Your task to perform on an android device: Go to battery settings Image 0: 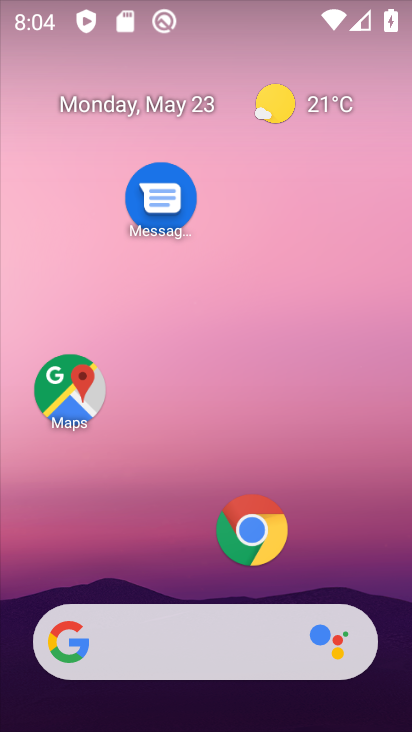
Step 0: click (397, 423)
Your task to perform on an android device: Go to battery settings Image 1: 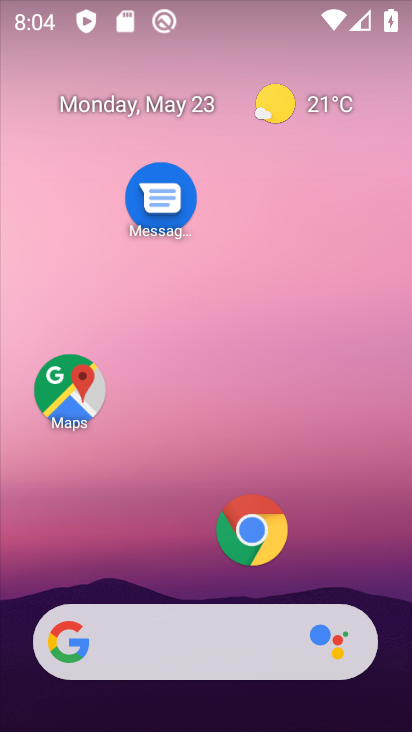
Step 1: drag from (185, 551) to (279, 56)
Your task to perform on an android device: Go to battery settings Image 2: 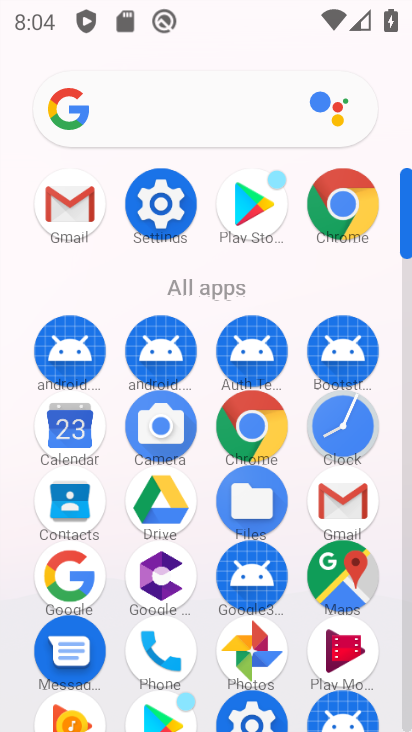
Step 2: click (160, 202)
Your task to perform on an android device: Go to battery settings Image 3: 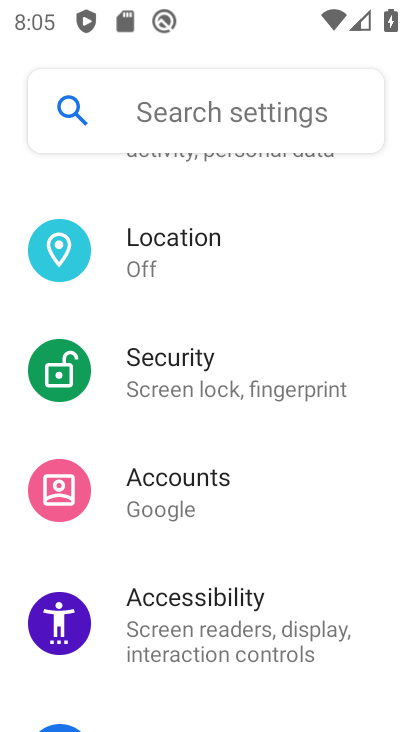
Step 3: drag from (115, 204) to (165, 629)
Your task to perform on an android device: Go to battery settings Image 4: 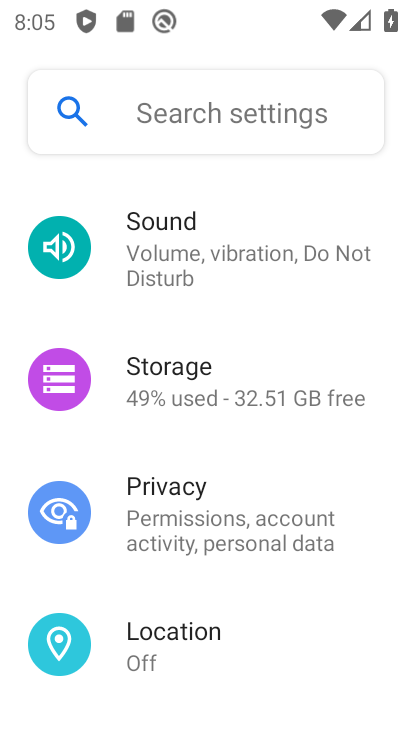
Step 4: drag from (124, 302) to (186, 675)
Your task to perform on an android device: Go to battery settings Image 5: 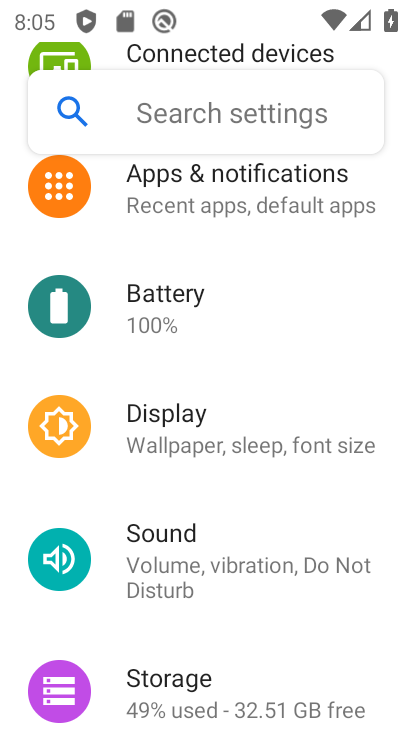
Step 5: click (134, 346)
Your task to perform on an android device: Go to battery settings Image 6: 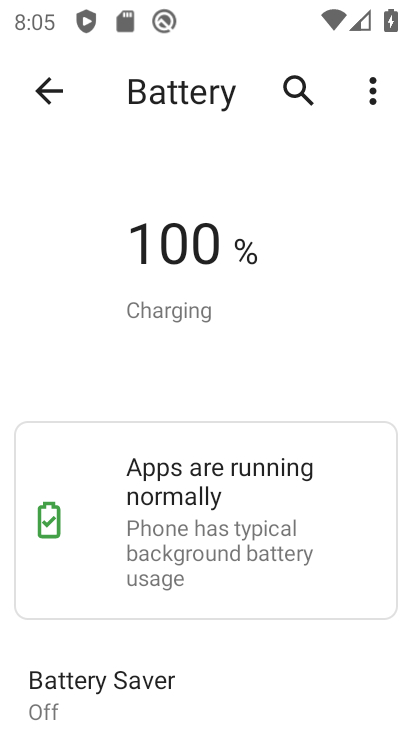
Step 6: task complete